Your task to perform on an android device: Search for macbook pro 15 inch on newegg.com, select the first entry, and add it to the cart. Image 0: 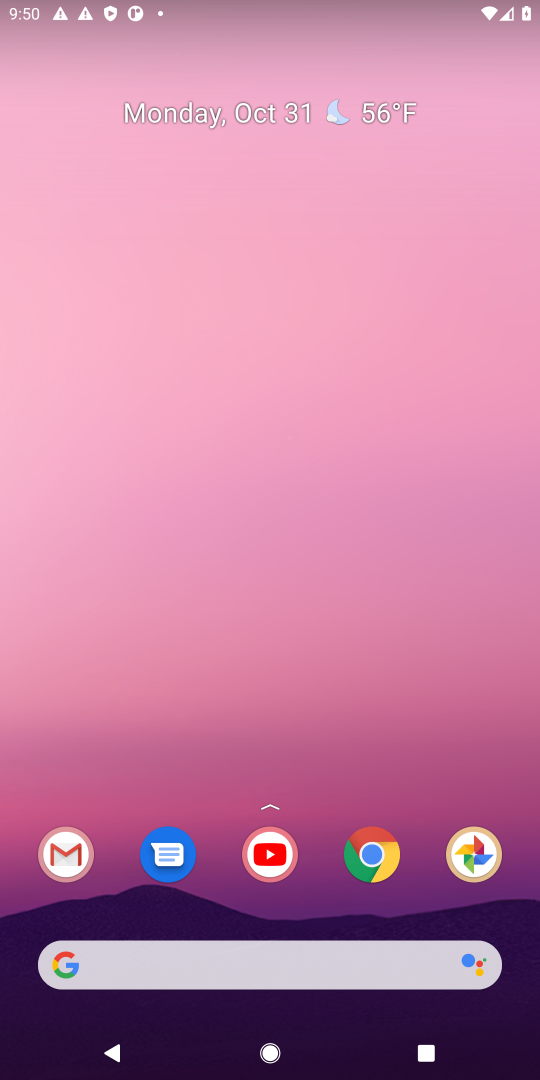
Step 0: click (329, 955)
Your task to perform on an android device: Search for macbook pro 15 inch on newegg.com, select the first entry, and add it to the cart. Image 1: 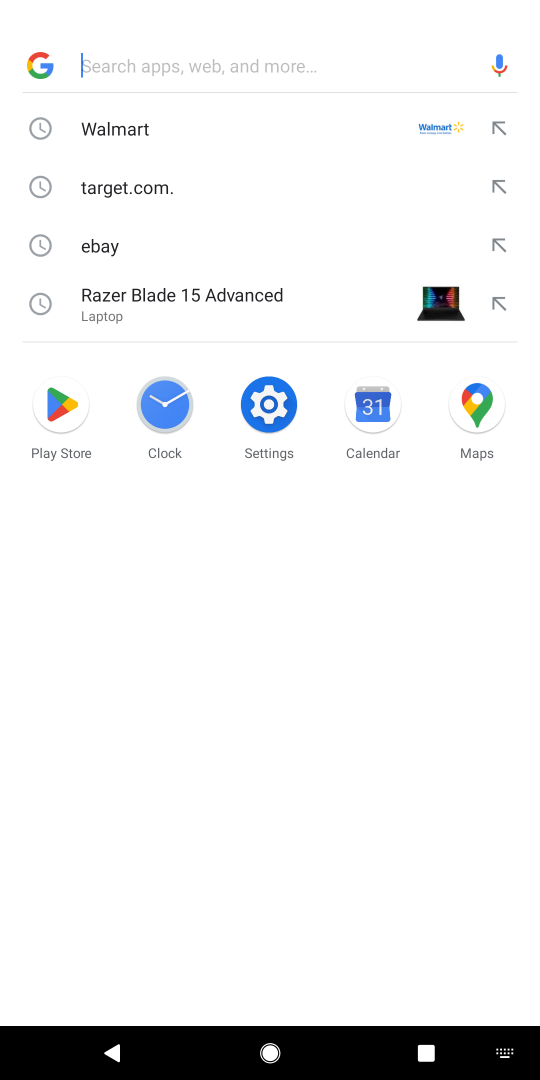
Step 1: type "newegg"
Your task to perform on an android device: Search for macbook pro 15 inch on newegg.com, select the first entry, and add it to the cart. Image 2: 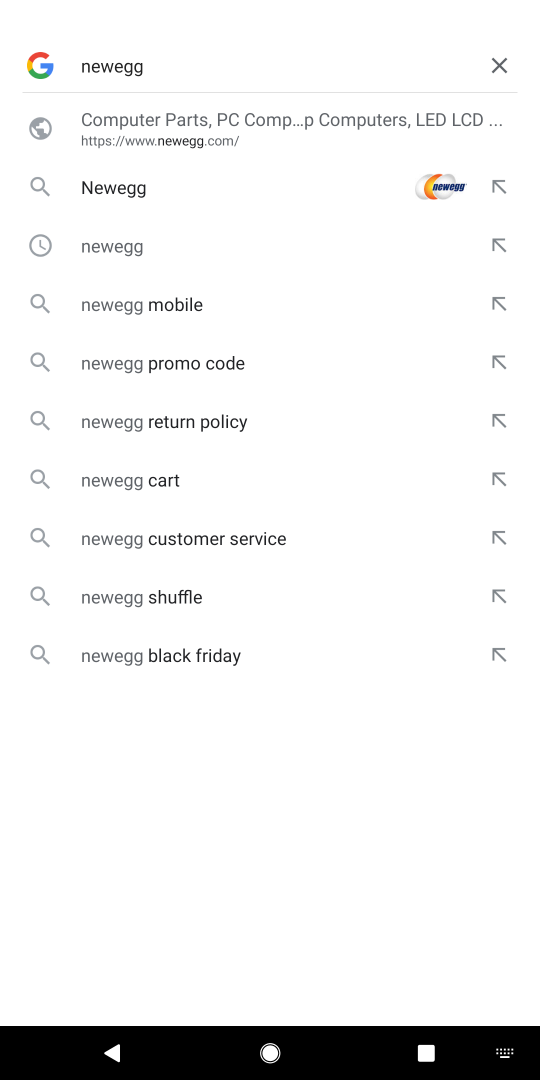
Step 2: click (147, 114)
Your task to perform on an android device: Search for macbook pro 15 inch on newegg.com, select the first entry, and add it to the cart. Image 3: 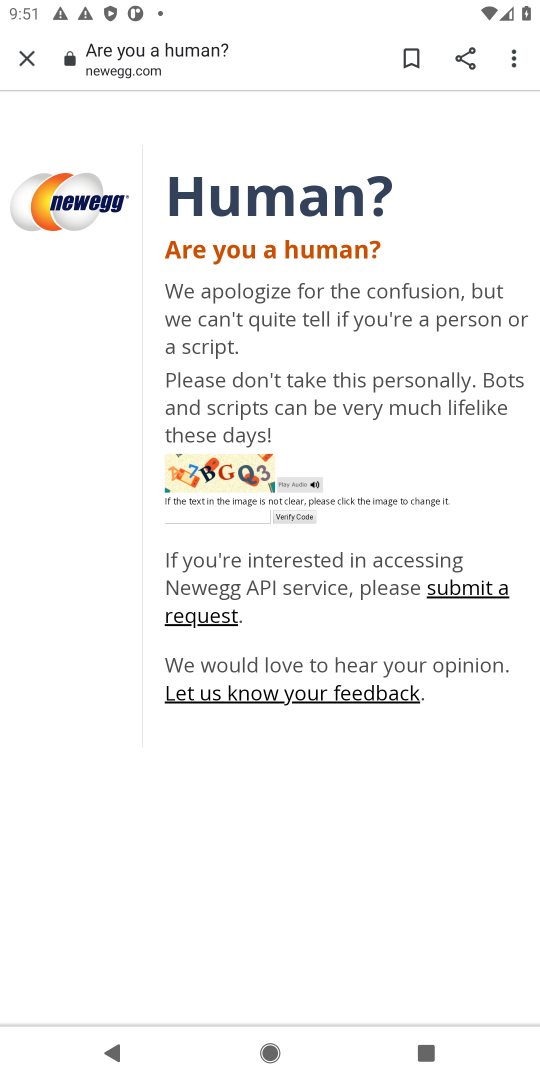
Step 3: task complete